Your task to perform on an android device: add a contact Image 0: 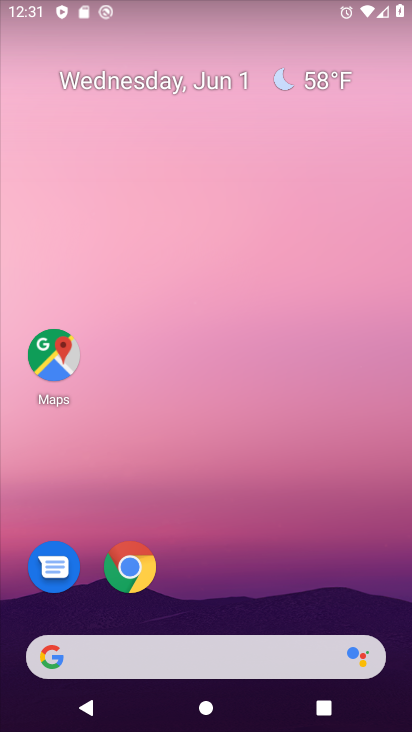
Step 0: drag from (200, 580) to (198, 39)
Your task to perform on an android device: add a contact Image 1: 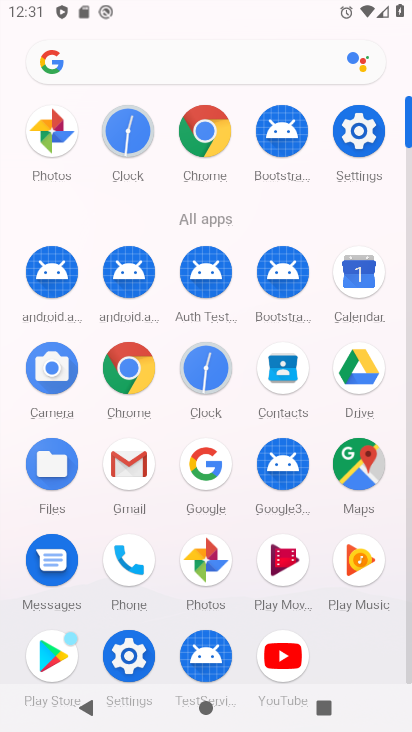
Step 1: click (291, 381)
Your task to perform on an android device: add a contact Image 2: 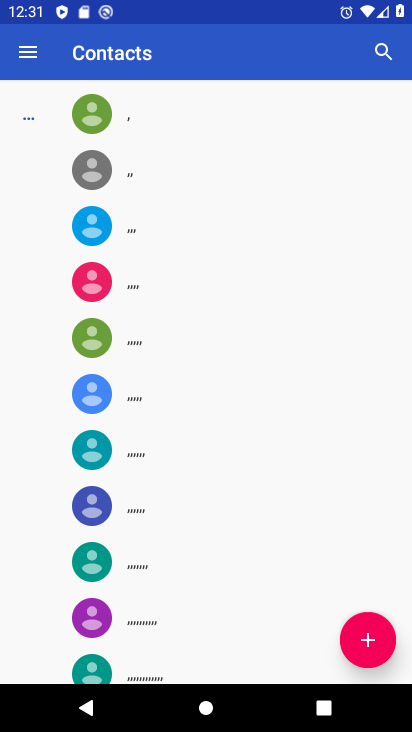
Step 2: click (369, 640)
Your task to perform on an android device: add a contact Image 3: 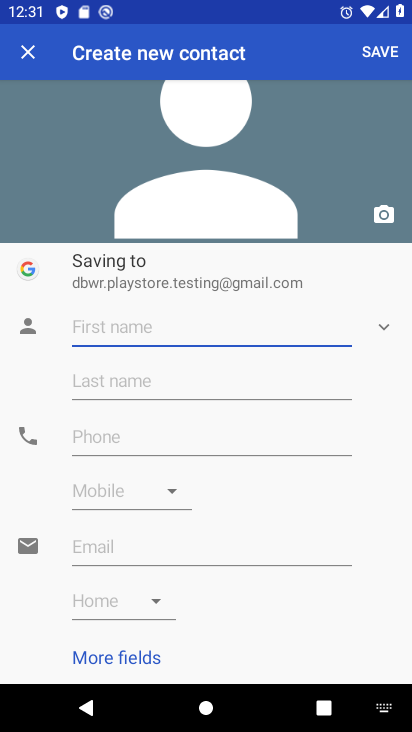
Step 3: type "dffhtdfh"
Your task to perform on an android device: add a contact Image 4: 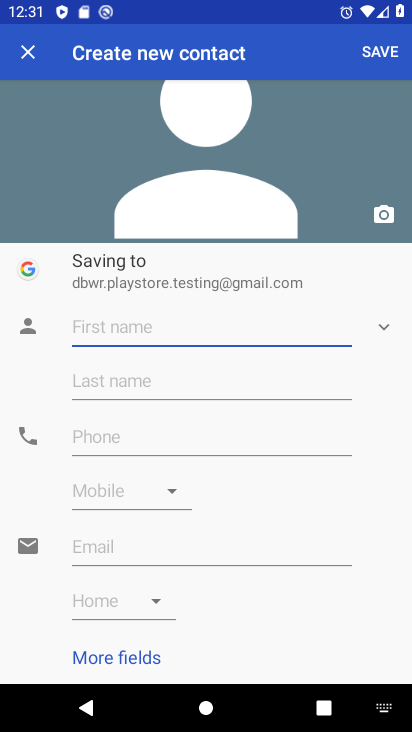
Step 4: click (402, 59)
Your task to perform on an android device: add a contact Image 5: 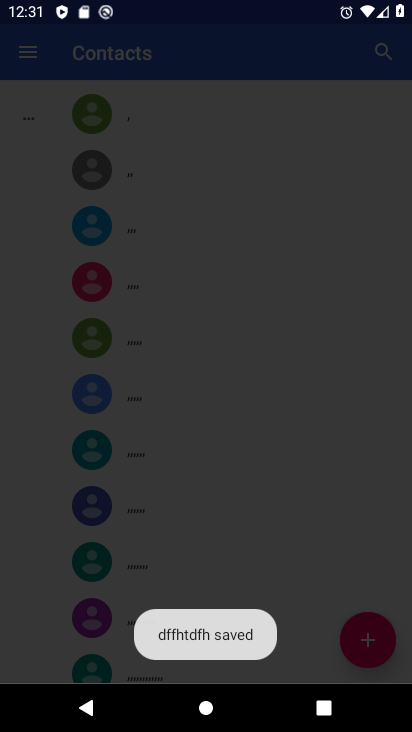
Step 5: click (387, 57)
Your task to perform on an android device: add a contact Image 6: 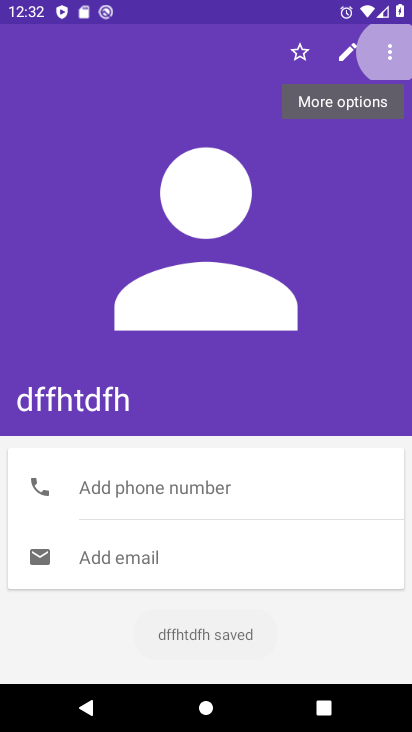
Step 6: task complete